Your task to perform on an android device: toggle airplane mode Image 0: 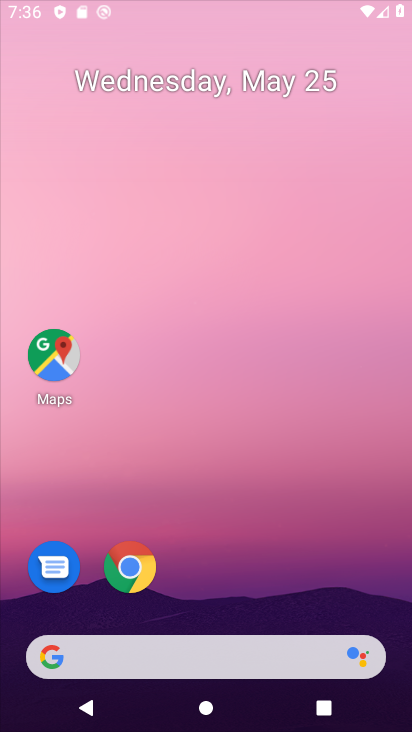
Step 0: drag from (305, 579) to (317, 99)
Your task to perform on an android device: toggle airplane mode Image 1: 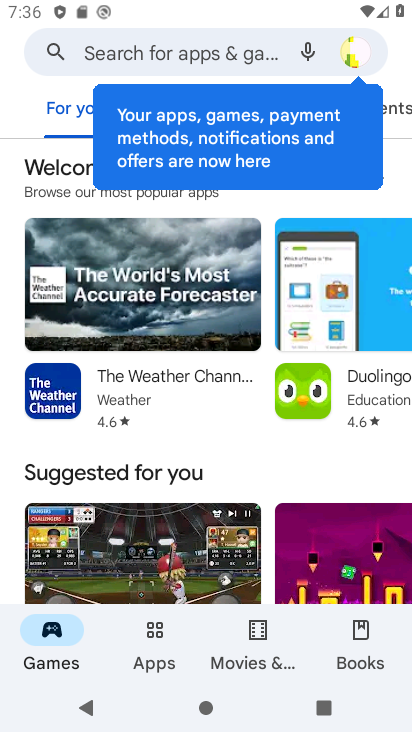
Step 1: press home button
Your task to perform on an android device: toggle airplane mode Image 2: 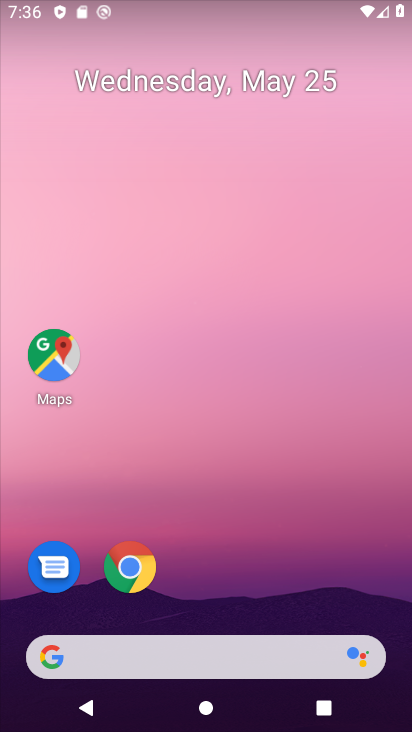
Step 2: drag from (258, 570) to (369, 9)
Your task to perform on an android device: toggle airplane mode Image 3: 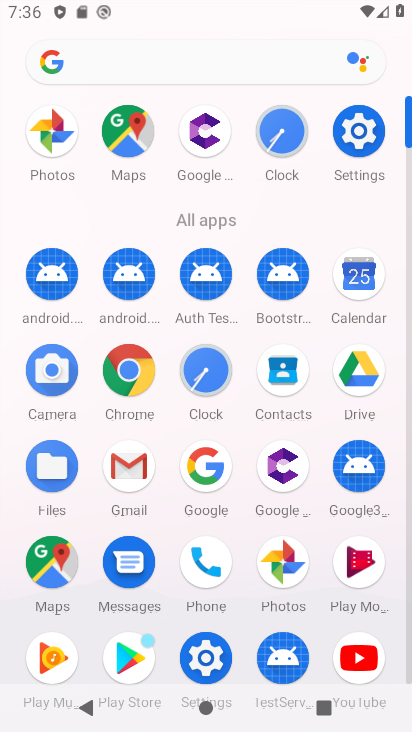
Step 3: click (283, 157)
Your task to perform on an android device: toggle airplane mode Image 4: 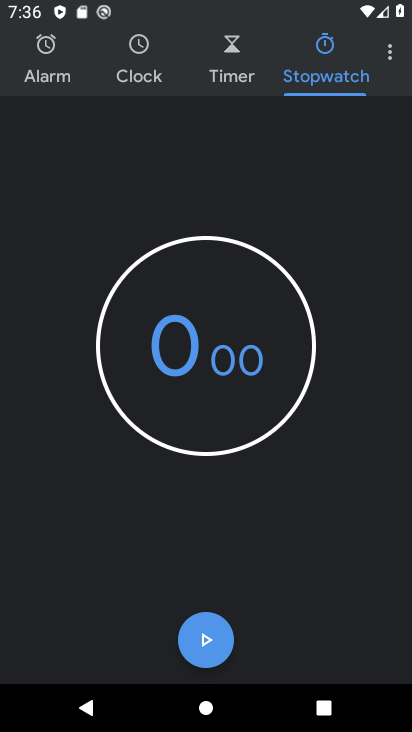
Step 4: task complete